Your task to perform on an android device: Open notification settings Image 0: 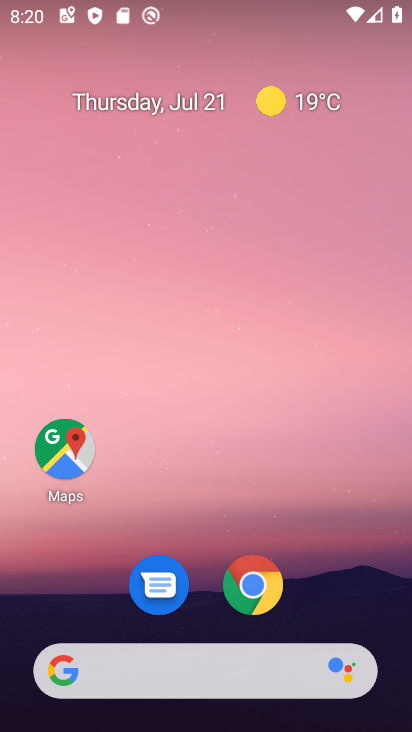
Step 0: drag from (339, 598) to (315, 42)
Your task to perform on an android device: Open notification settings Image 1: 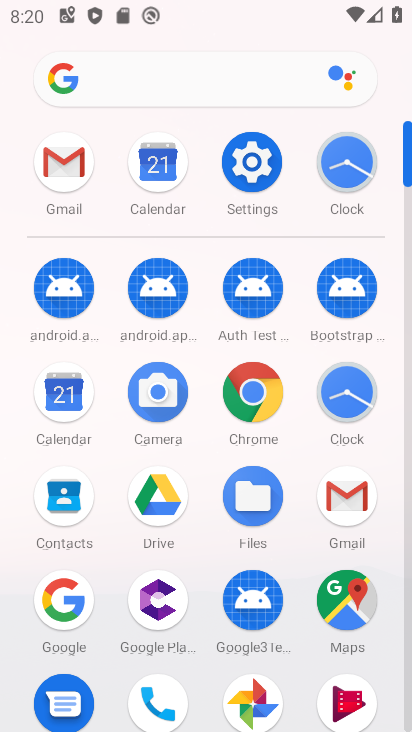
Step 1: click (265, 153)
Your task to perform on an android device: Open notification settings Image 2: 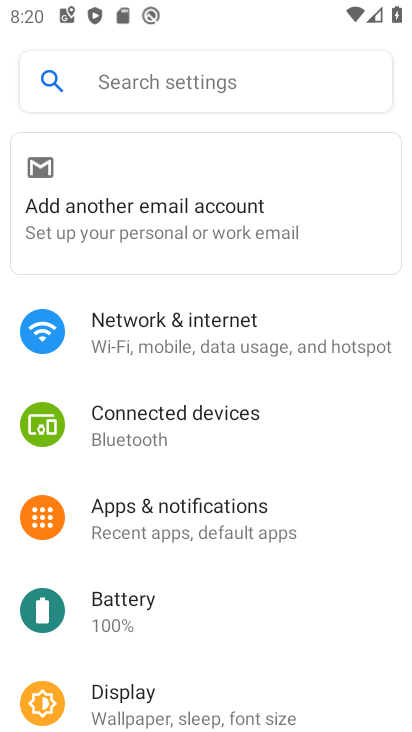
Step 2: click (176, 516)
Your task to perform on an android device: Open notification settings Image 3: 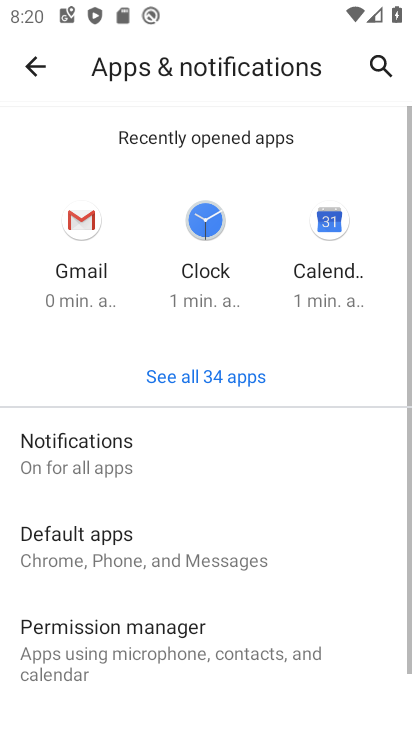
Step 3: click (100, 458)
Your task to perform on an android device: Open notification settings Image 4: 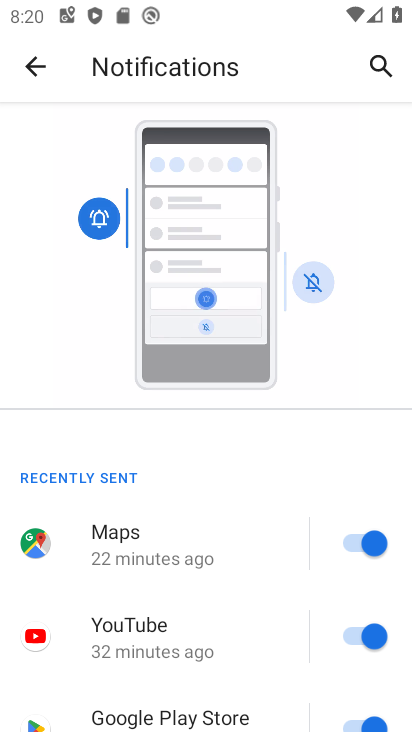
Step 4: task complete